Your task to perform on an android device: open a new tab in the chrome app Image 0: 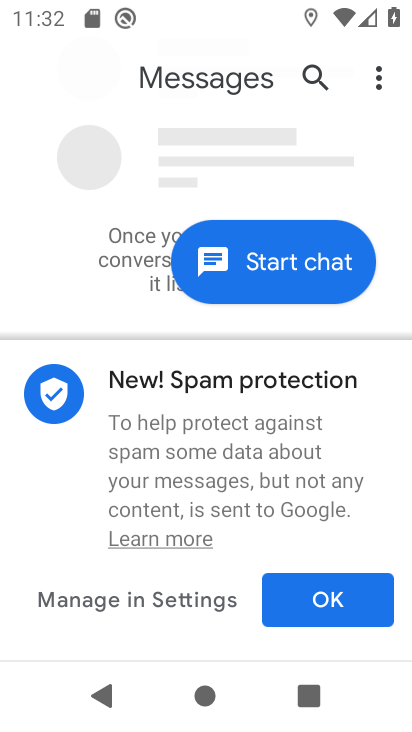
Step 0: press back button
Your task to perform on an android device: open a new tab in the chrome app Image 1: 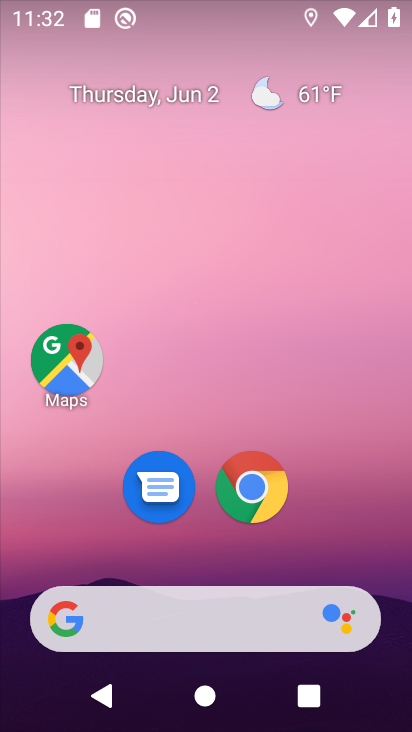
Step 1: click (254, 488)
Your task to perform on an android device: open a new tab in the chrome app Image 2: 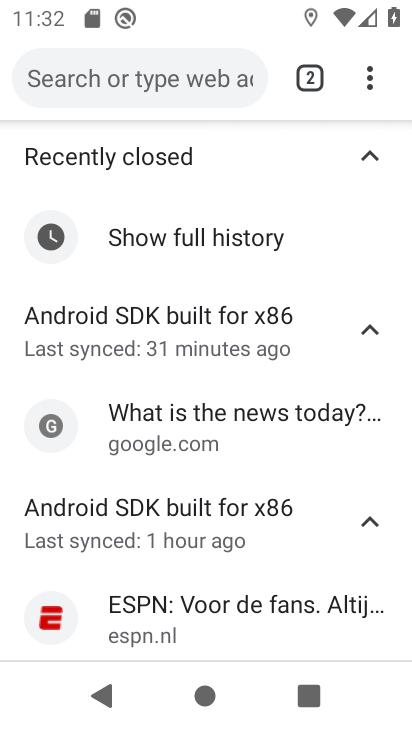
Step 2: click (368, 77)
Your task to perform on an android device: open a new tab in the chrome app Image 3: 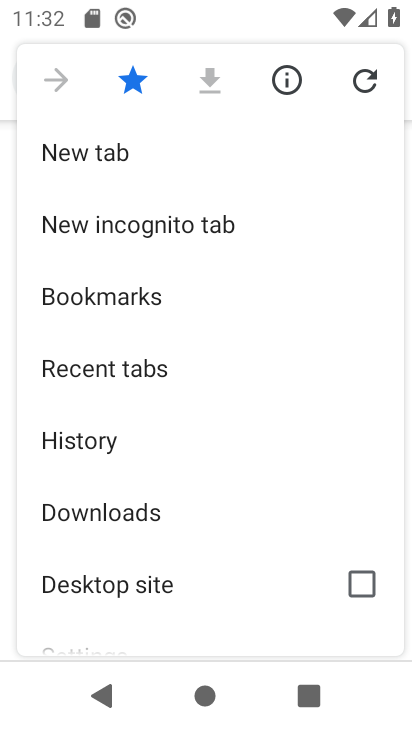
Step 3: click (109, 155)
Your task to perform on an android device: open a new tab in the chrome app Image 4: 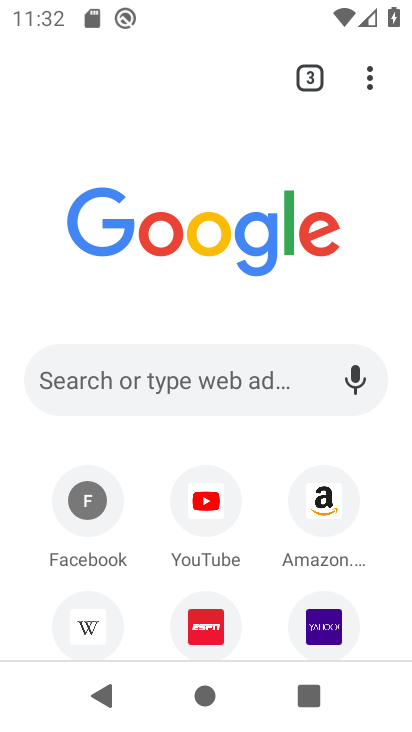
Step 4: task complete